Your task to perform on an android device: Go to Google maps Image 0: 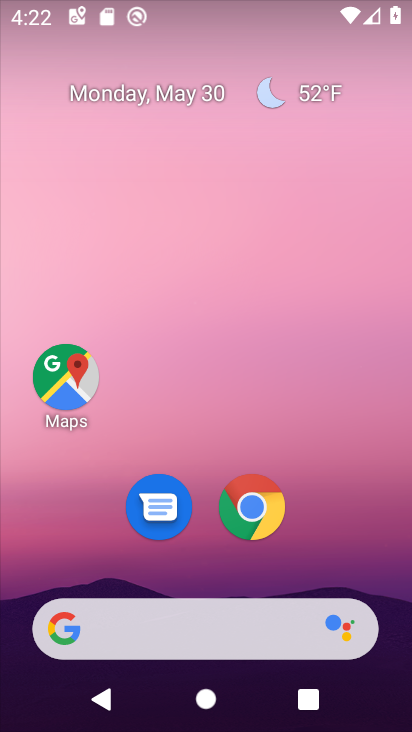
Step 0: drag from (324, 555) to (325, 125)
Your task to perform on an android device: Go to Google maps Image 1: 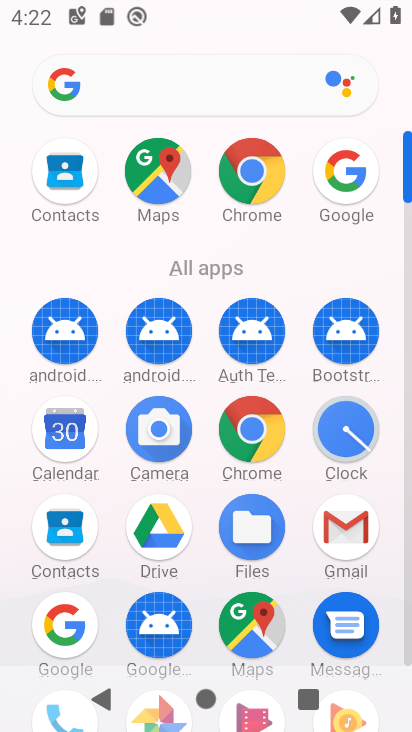
Step 1: click (255, 629)
Your task to perform on an android device: Go to Google maps Image 2: 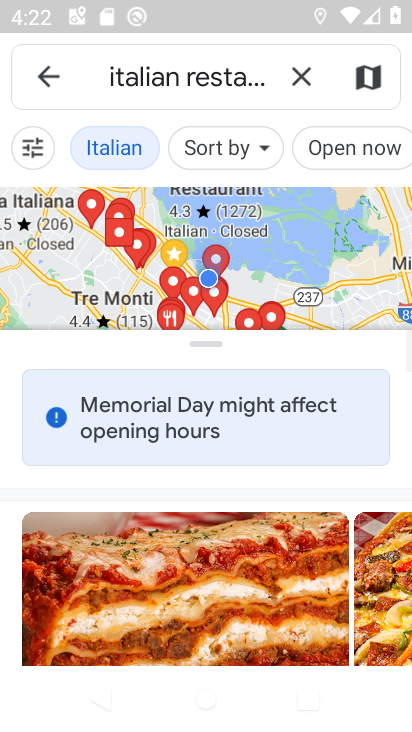
Step 2: click (64, 78)
Your task to perform on an android device: Go to Google maps Image 3: 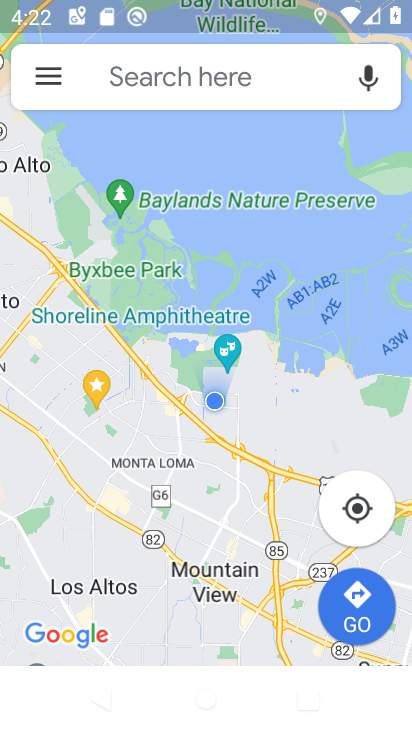
Step 3: task complete